Your task to perform on an android device: Empty the shopping cart on costco. Add macbook pro 15 inch to the cart on costco, then select checkout. Image 0: 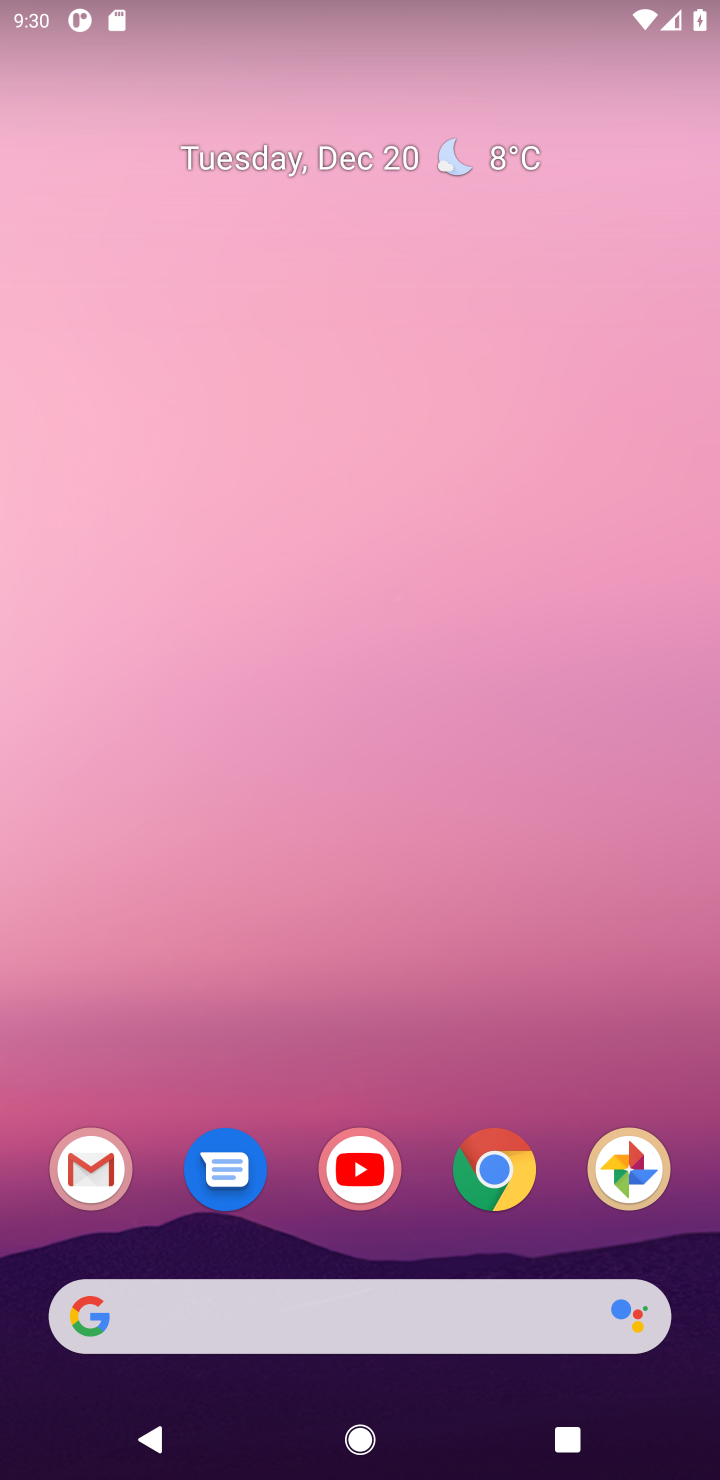
Step 0: click (476, 1155)
Your task to perform on an android device: Empty the shopping cart on costco. Add macbook pro 15 inch to the cart on costco, then select checkout. Image 1: 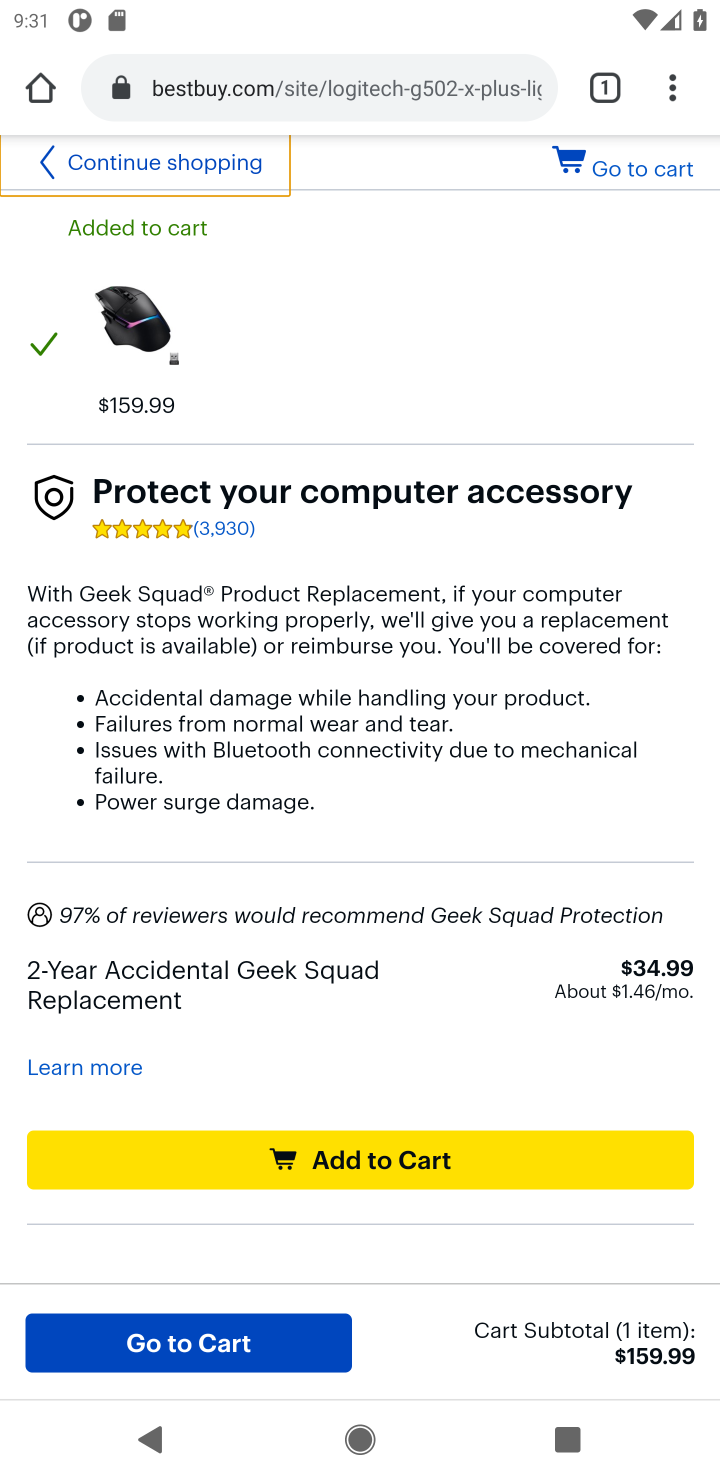
Step 1: click (366, 1158)
Your task to perform on an android device: Empty the shopping cart on costco. Add macbook pro 15 inch to the cart on costco, then select checkout. Image 2: 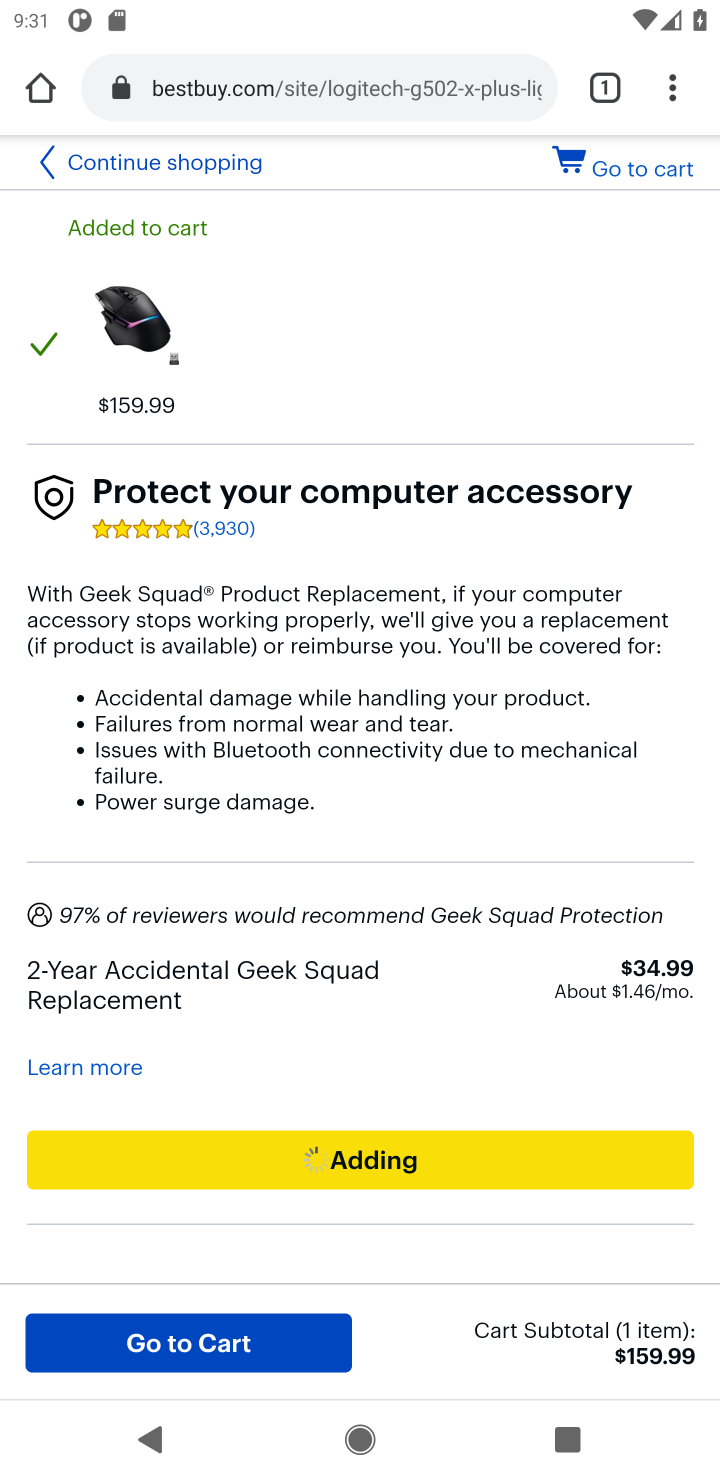
Step 2: task complete